Your task to perform on an android device: Open ESPN.com Image 0: 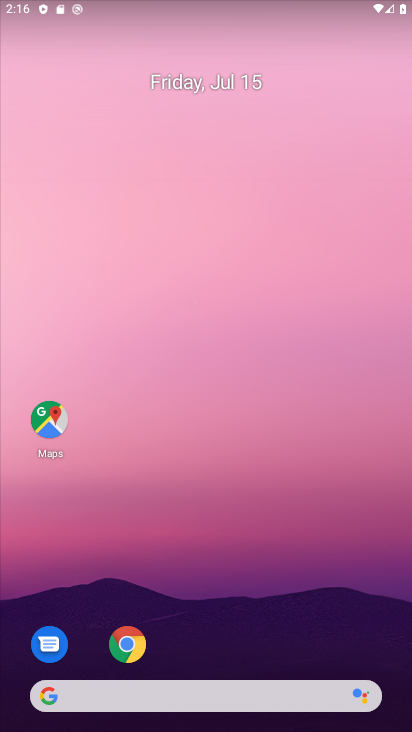
Step 0: drag from (273, 576) to (247, 114)
Your task to perform on an android device: Open ESPN.com Image 1: 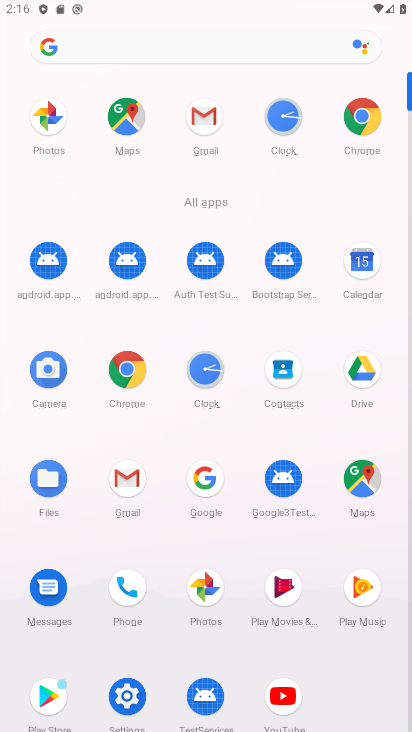
Step 1: click (136, 370)
Your task to perform on an android device: Open ESPN.com Image 2: 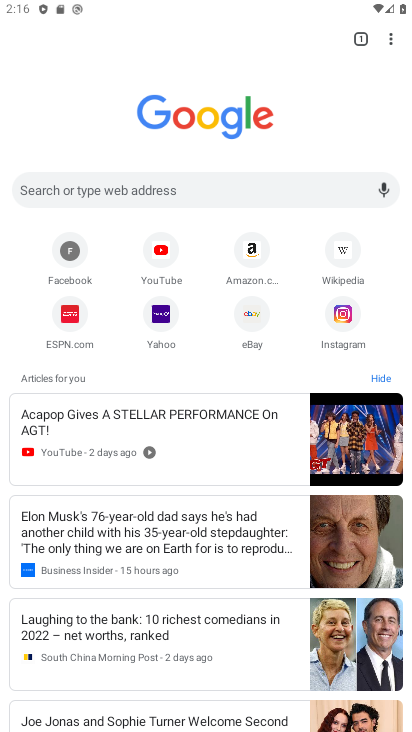
Step 2: click (73, 323)
Your task to perform on an android device: Open ESPN.com Image 3: 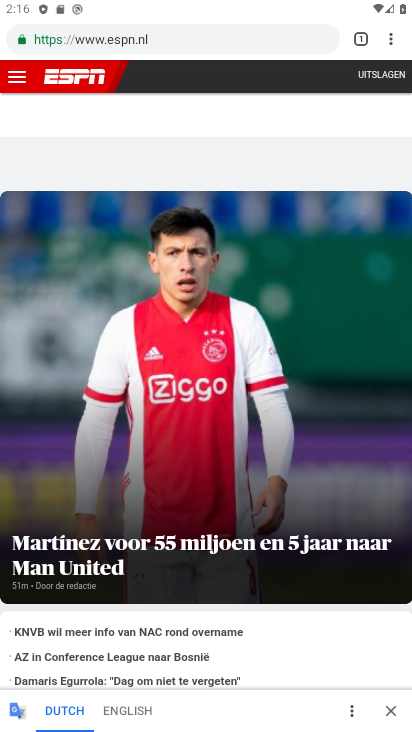
Step 3: task complete